Your task to perform on an android device: open wifi settings Image 0: 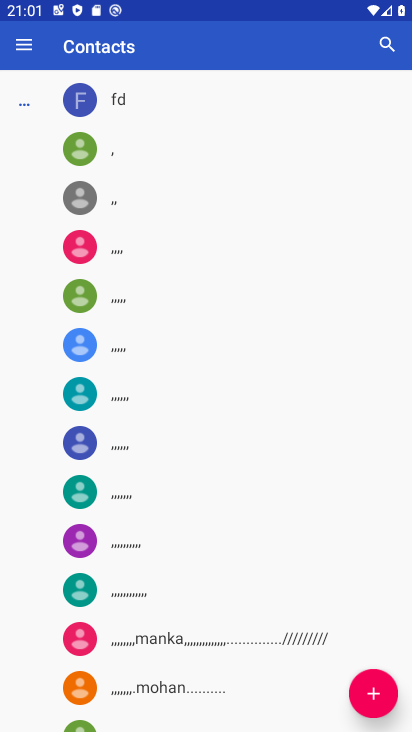
Step 0: press home button
Your task to perform on an android device: open wifi settings Image 1: 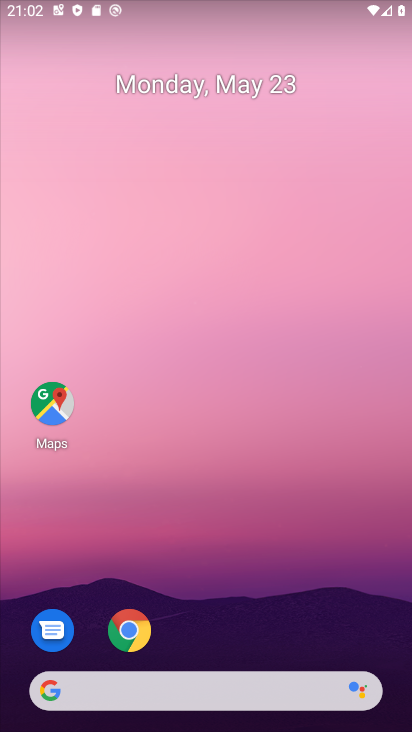
Step 1: drag from (184, 667) to (215, 112)
Your task to perform on an android device: open wifi settings Image 2: 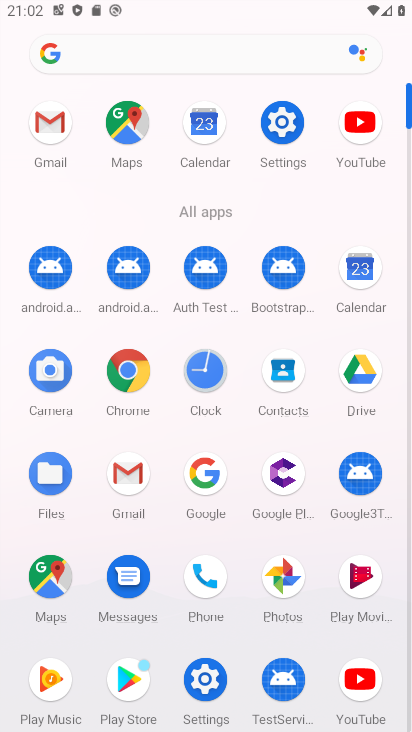
Step 2: click (279, 126)
Your task to perform on an android device: open wifi settings Image 3: 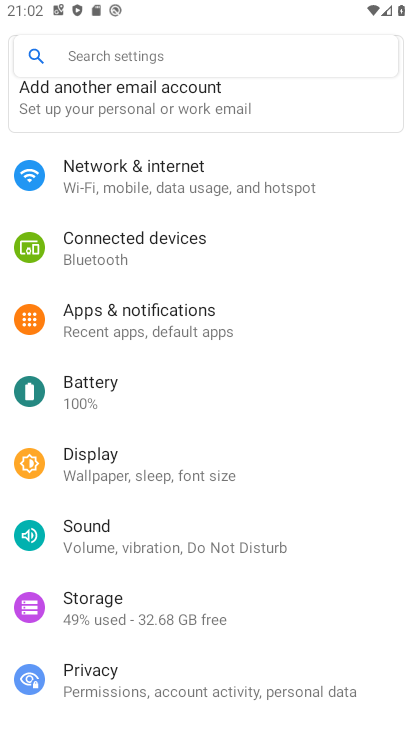
Step 3: click (166, 178)
Your task to perform on an android device: open wifi settings Image 4: 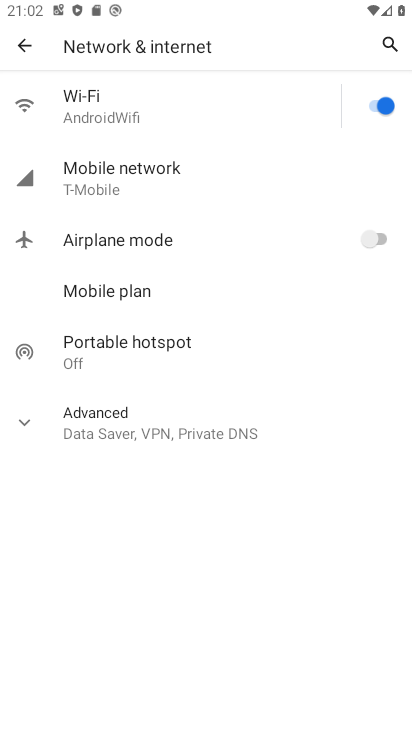
Step 4: click (123, 105)
Your task to perform on an android device: open wifi settings Image 5: 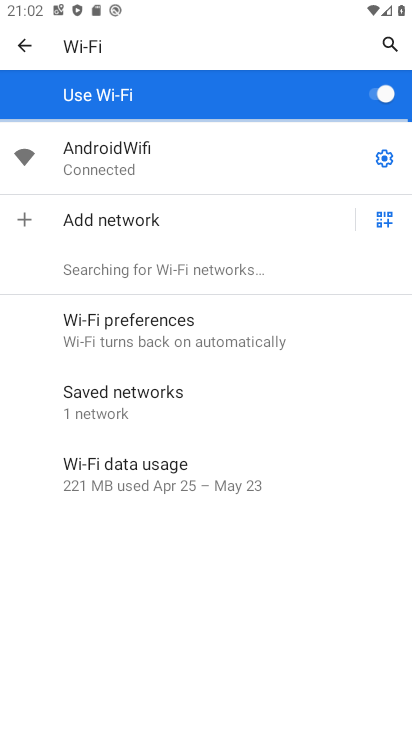
Step 5: click (376, 165)
Your task to perform on an android device: open wifi settings Image 6: 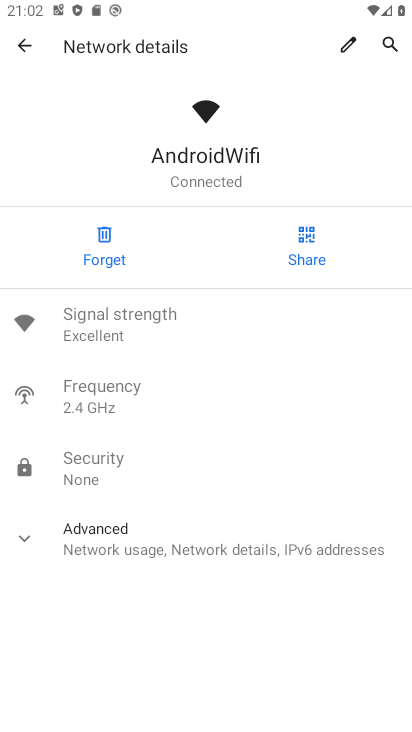
Step 6: click (174, 538)
Your task to perform on an android device: open wifi settings Image 7: 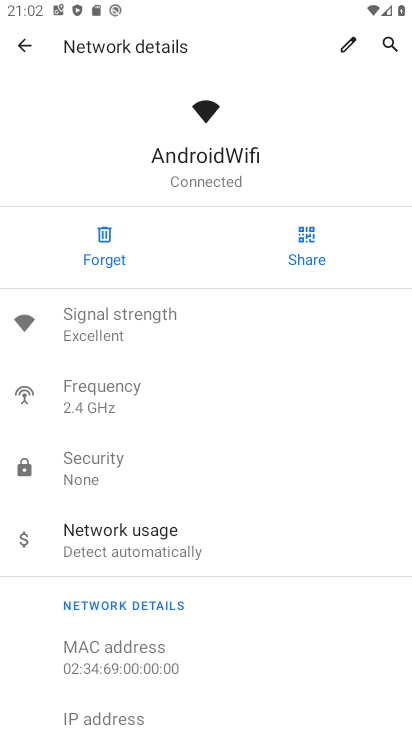
Step 7: task complete